Your task to perform on an android device: set default search engine in the chrome app Image 0: 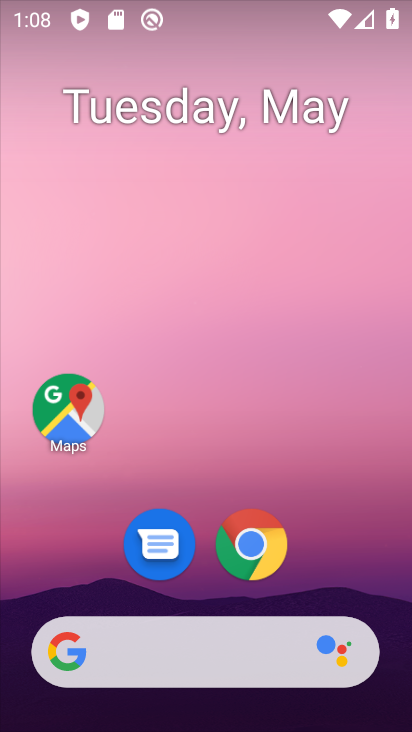
Step 0: click (269, 562)
Your task to perform on an android device: set default search engine in the chrome app Image 1: 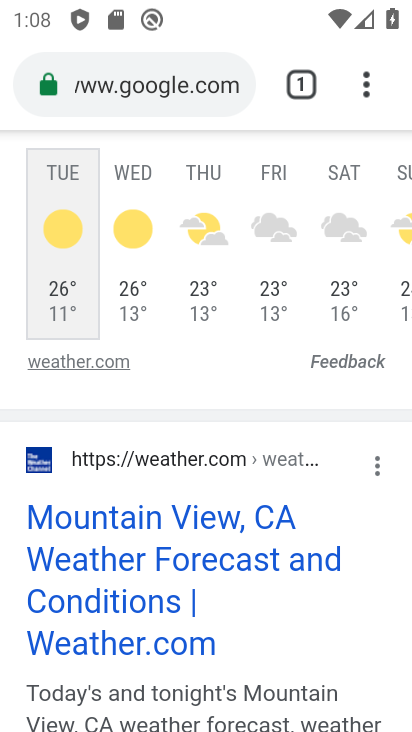
Step 1: click (364, 80)
Your task to perform on an android device: set default search engine in the chrome app Image 2: 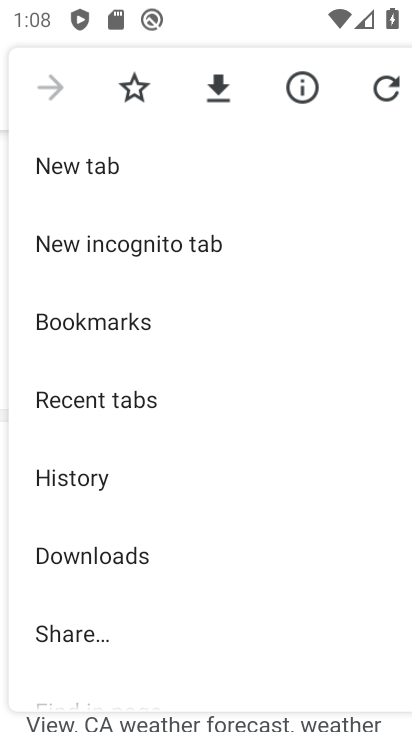
Step 2: drag from (195, 629) to (229, 215)
Your task to perform on an android device: set default search engine in the chrome app Image 3: 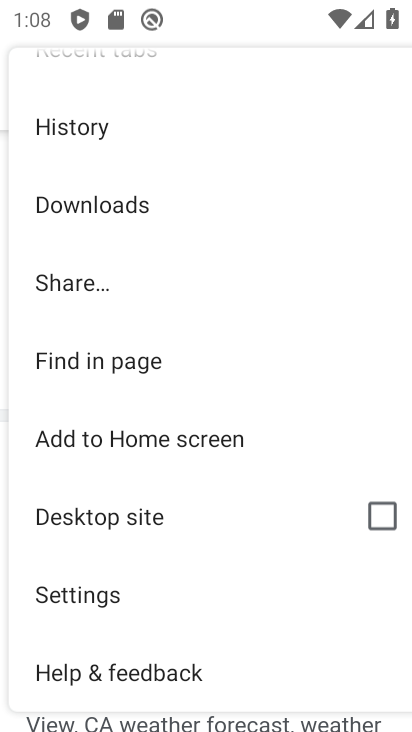
Step 3: click (105, 608)
Your task to perform on an android device: set default search engine in the chrome app Image 4: 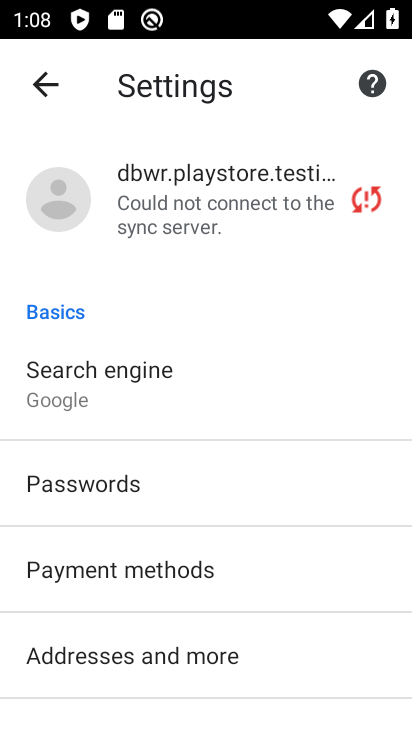
Step 4: click (154, 383)
Your task to perform on an android device: set default search engine in the chrome app Image 5: 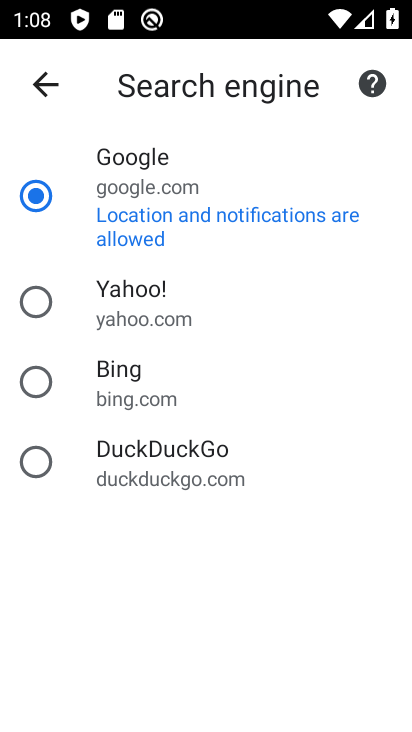
Step 5: click (118, 308)
Your task to perform on an android device: set default search engine in the chrome app Image 6: 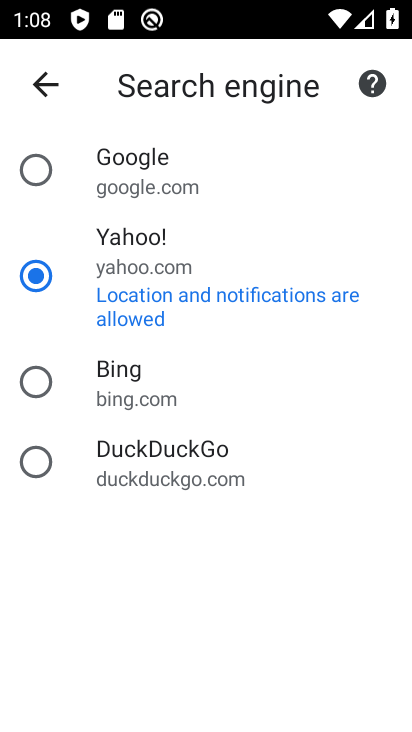
Step 6: task complete